Your task to perform on an android device: Open Chrome and go to the settings page Image 0: 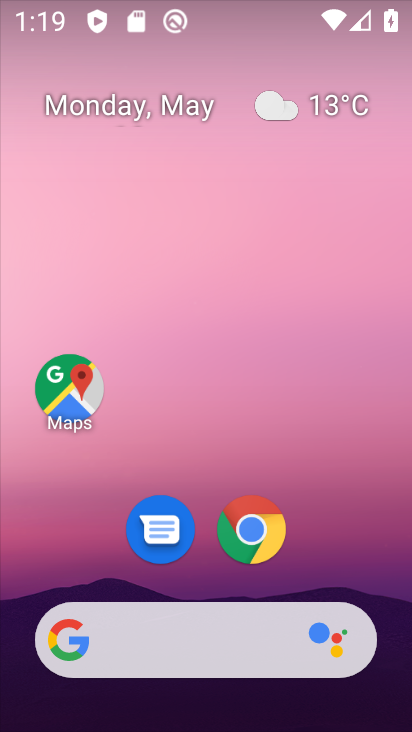
Step 0: click (281, 543)
Your task to perform on an android device: Open Chrome and go to the settings page Image 1: 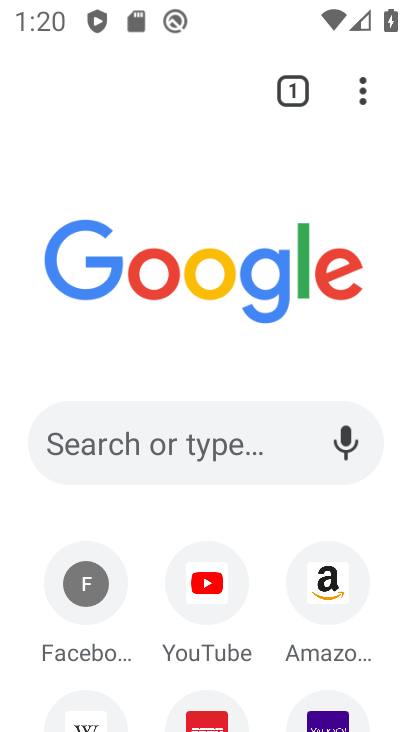
Step 1: click (367, 89)
Your task to perform on an android device: Open Chrome and go to the settings page Image 2: 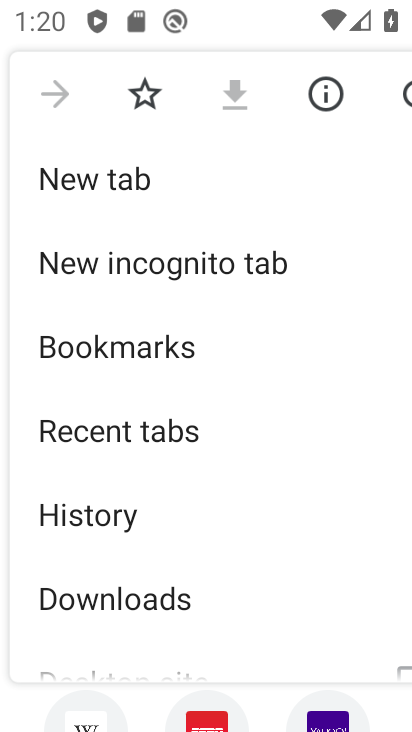
Step 2: drag from (292, 631) to (233, 145)
Your task to perform on an android device: Open Chrome and go to the settings page Image 3: 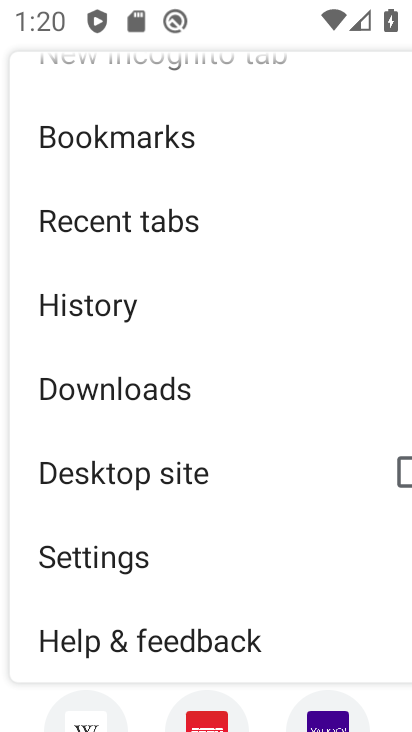
Step 3: click (169, 563)
Your task to perform on an android device: Open Chrome and go to the settings page Image 4: 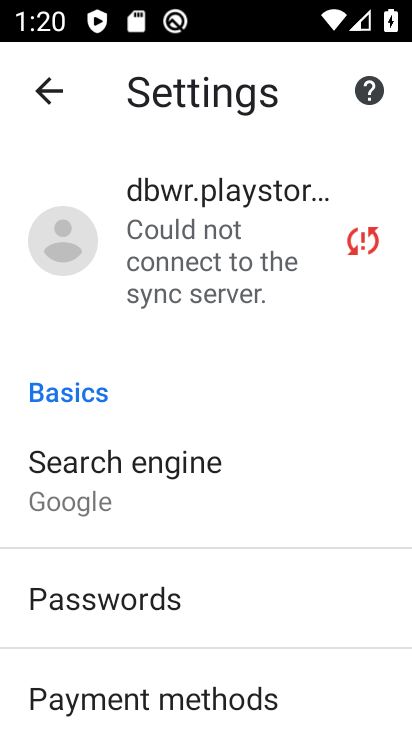
Step 4: task complete